Your task to perform on an android device: Show me the alarms in the clock app Image 0: 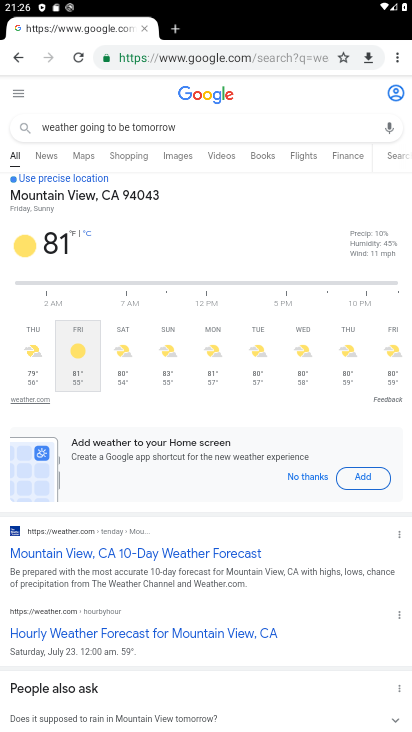
Step 0: press home button
Your task to perform on an android device: Show me the alarms in the clock app Image 1: 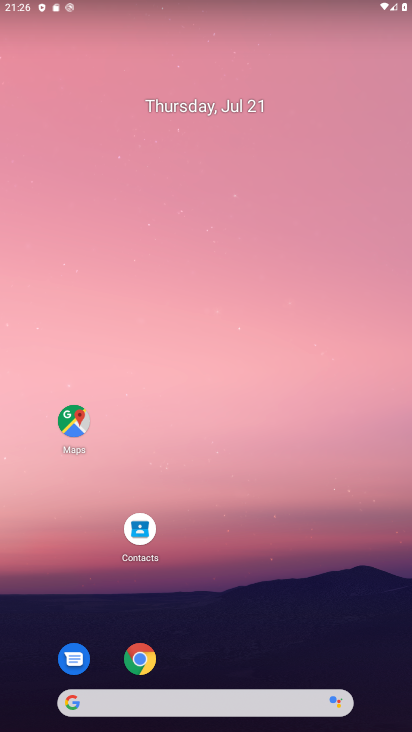
Step 1: drag from (164, 700) to (204, 225)
Your task to perform on an android device: Show me the alarms in the clock app Image 2: 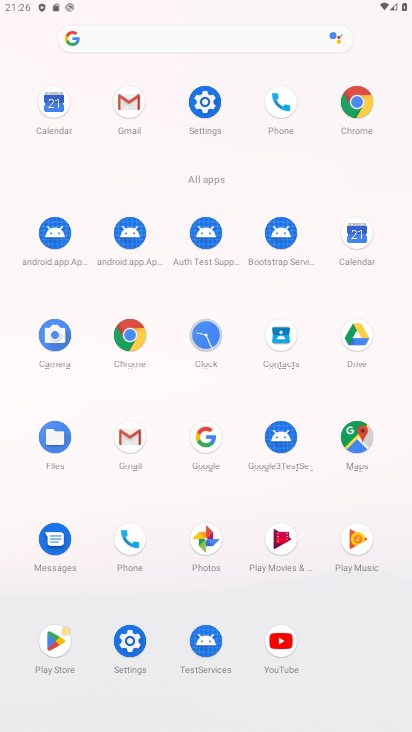
Step 2: click (211, 336)
Your task to perform on an android device: Show me the alarms in the clock app Image 3: 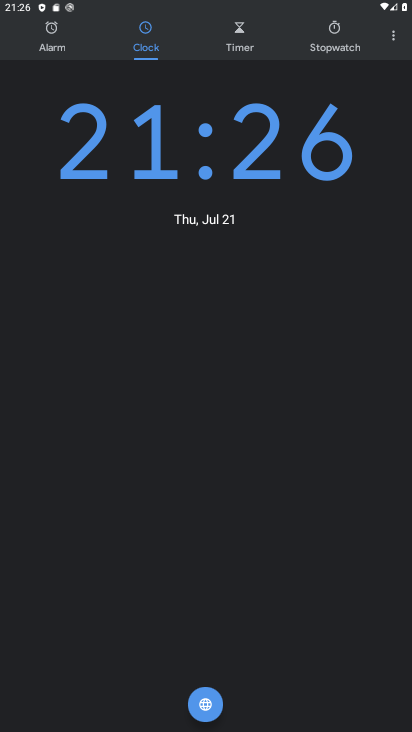
Step 3: click (43, 33)
Your task to perform on an android device: Show me the alarms in the clock app Image 4: 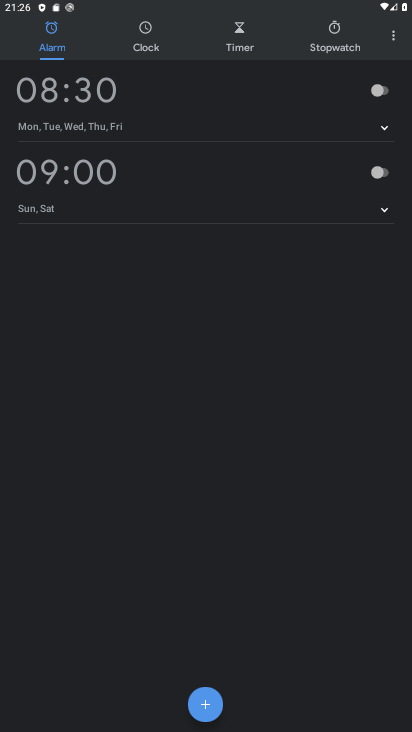
Step 4: task complete